Your task to perform on an android device: change text size in settings app Image 0: 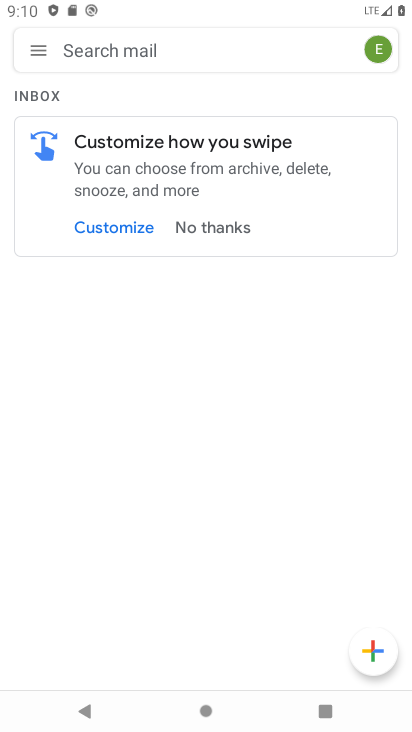
Step 0: press home button
Your task to perform on an android device: change text size in settings app Image 1: 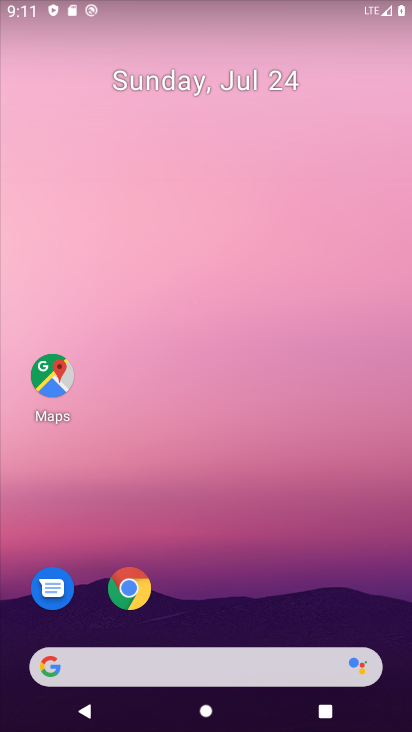
Step 1: drag from (243, 665) to (247, 30)
Your task to perform on an android device: change text size in settings app Image 2: 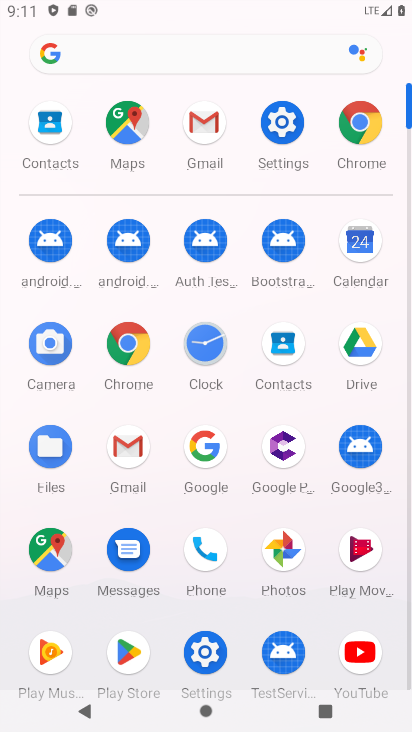
Step 2: click (283, 114)
Your task to perform on an android device: change text size in settings app Image 3: 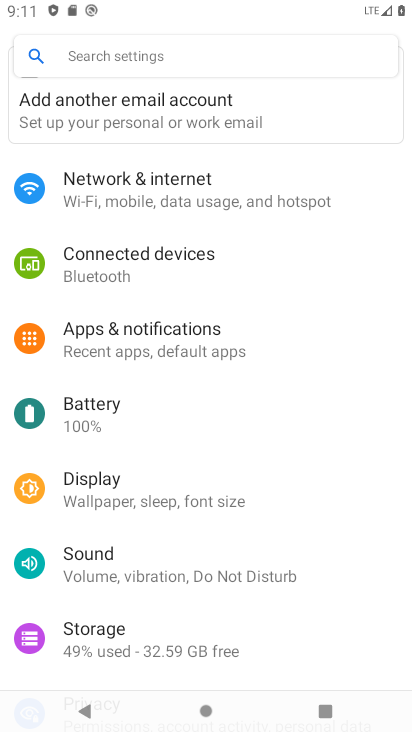
Step 3: click (193, 488)
Your task to perform on an android device: change text size in settings app Image 4: 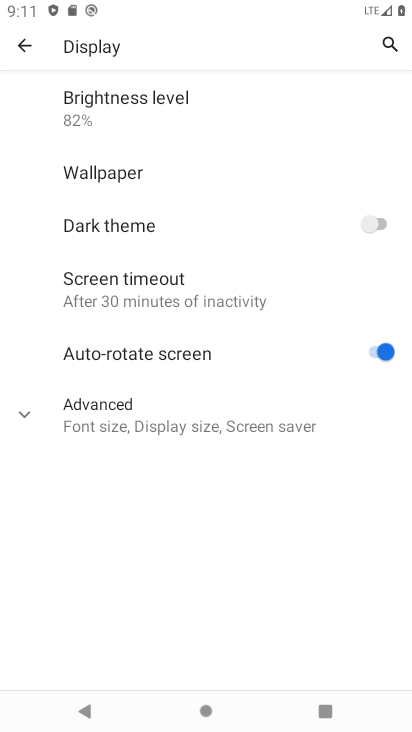
Step 4: click (163, 413)
Your task to perform on an android device: change text size in settings app Image 5: 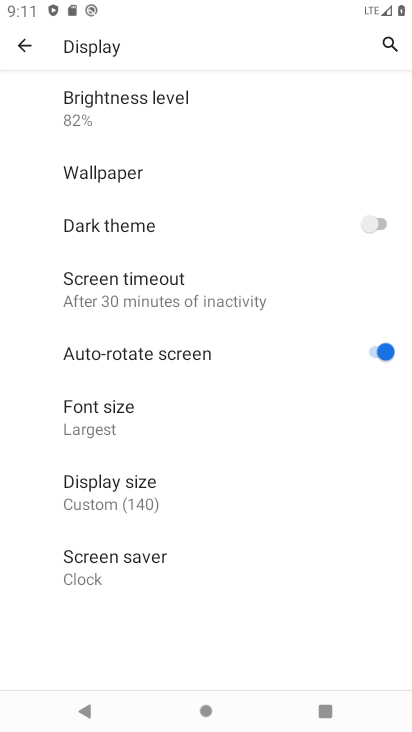
Step 5: click (108, 418)
Your task to perform on an android device: change text size in settings app Image 6: 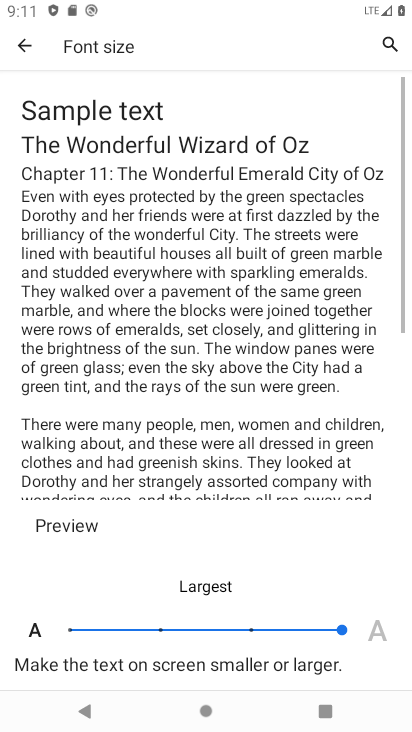
Step 6: click (252, 630)
Your task to perform on an android device: change text size in settings app Image 7: 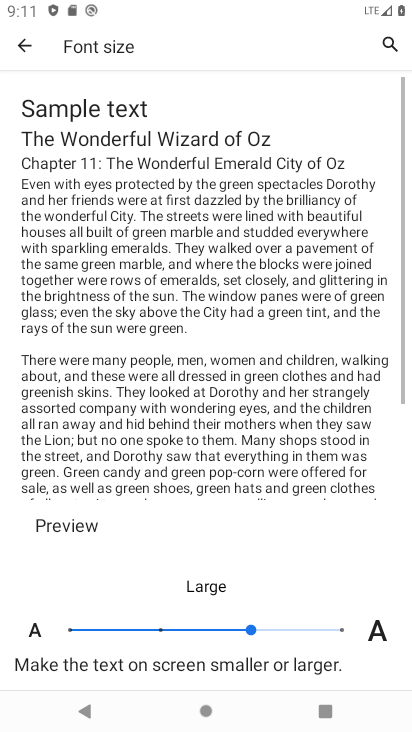
Step 7: task complete